Your task to perform on an android device: Go to network settings Image 0: 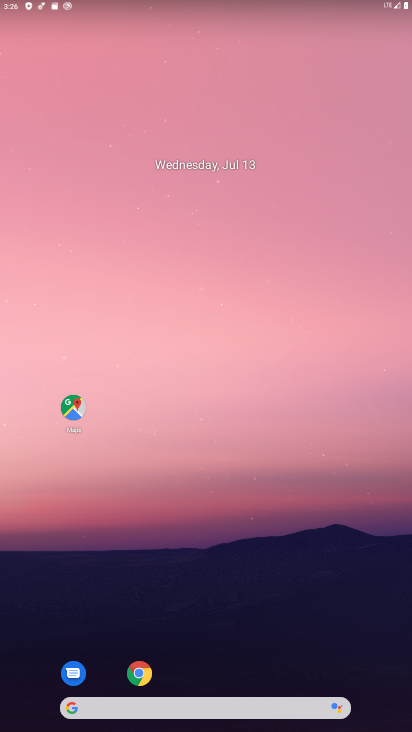
Step 0: drag from (262, 391) to (266, 121)
Your task to perform on an android device: Go to network settings Image 1: 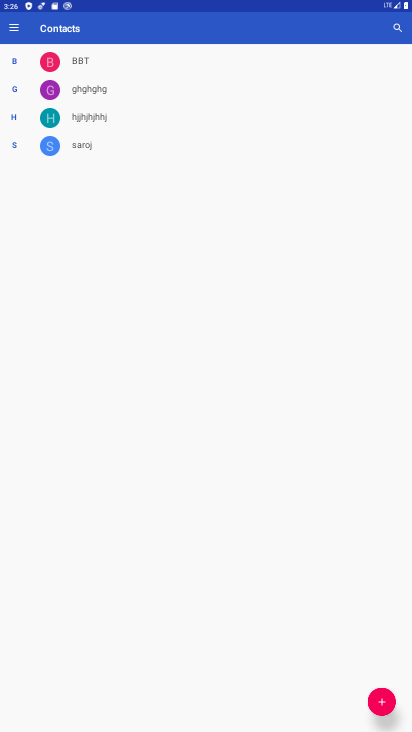
Step 1: press home button
Your task to perform on an android device: Go to network settings Image 2: 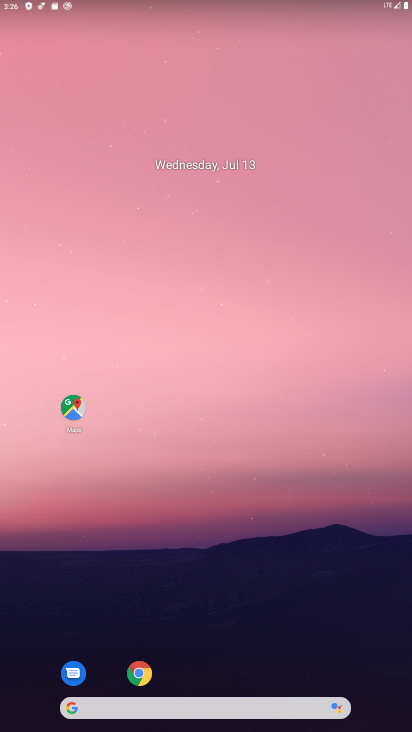
Step 2: drag from (237, 697) to (220, 148)
Your task to perform on an android device: Go to network settings Image 3: 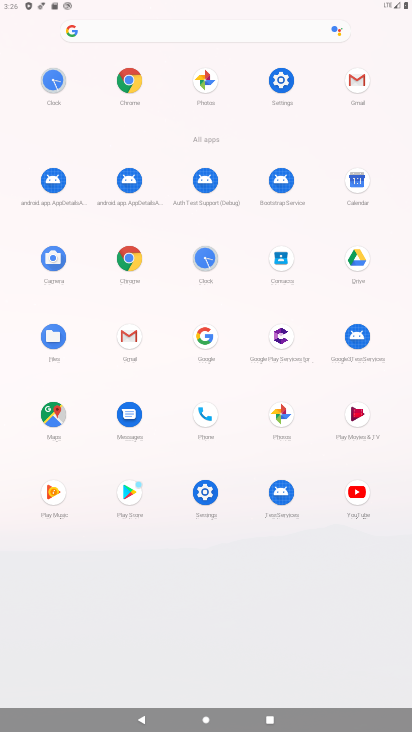
Step 3: click (286, 78)
Your task to perform on an android device: Go to network settings Image 4: 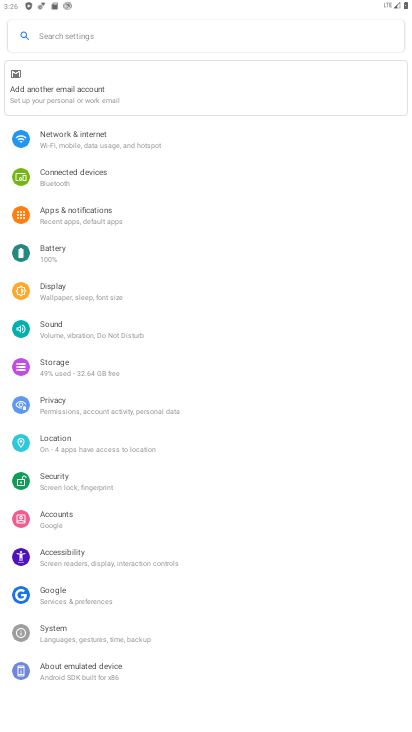
Step 4: click (78, 141)
Your task to perform on an android device: Go to network settings Image 5: 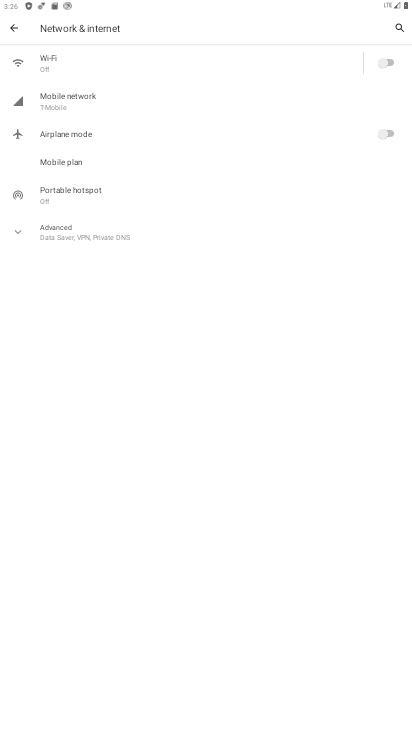
Step 5: click (64, 101)
Your task to perform on an android device: Go to network settings Image 6: 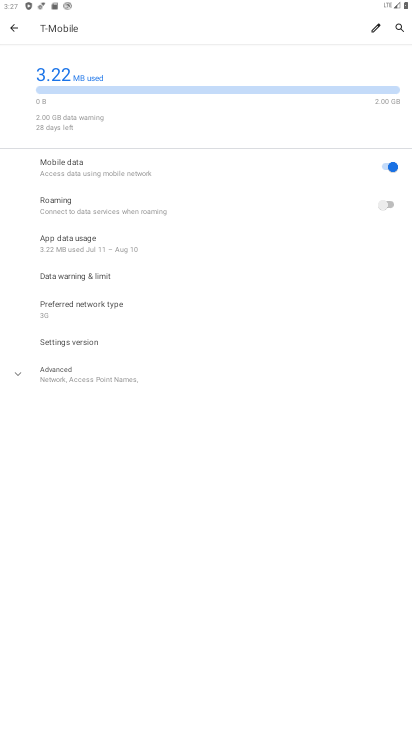
Step 6: task complete